Your task to perform on an android device: Check the settings for the Google Chrome app Image 0: 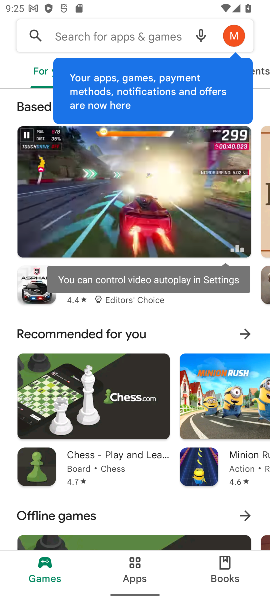
Step 0: press home button
Your task to perform on an android device: Check the settings for the Google Chrome app Image 1: 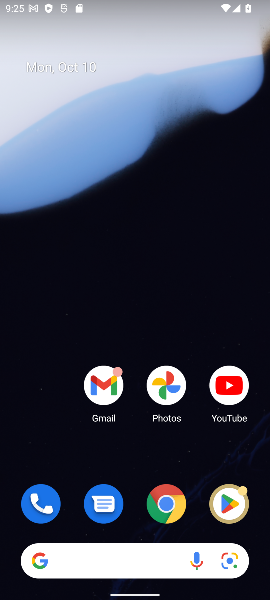
Step 1: click (166, 507)
Your task to perform on an android device: Check the settings for the Google Chrome app Image 2: 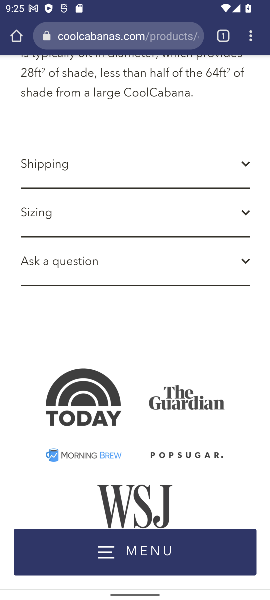
Step 2: click (121, 24)
Your task to perform on an android device: Check the settings for the Google Chrome app Image 3: 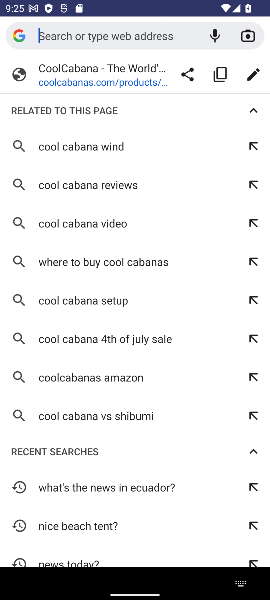
Step 3: press back button
Your task to perform on an android device: Check the settings for the Google Chrome app Image 4: 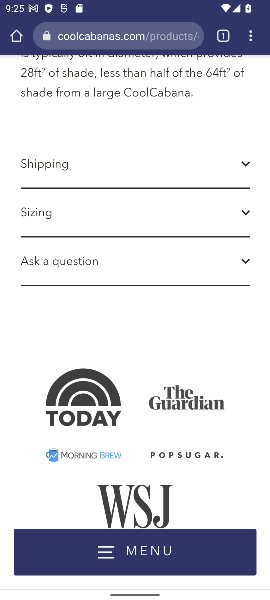
Step 4: click (249, 38)
Your task to perform on an android device: Check the settings for the Google Chrome app Image 5: 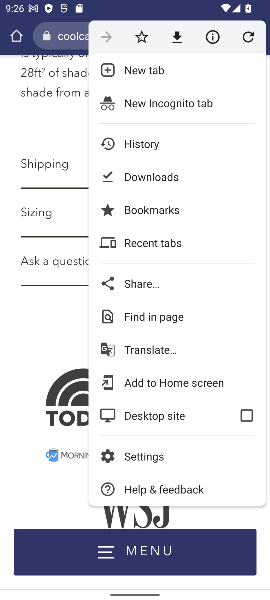
Step 5: click (143, 465)
Your task to perform on an android device: Check the settings for the Google Chrome app Image 6: 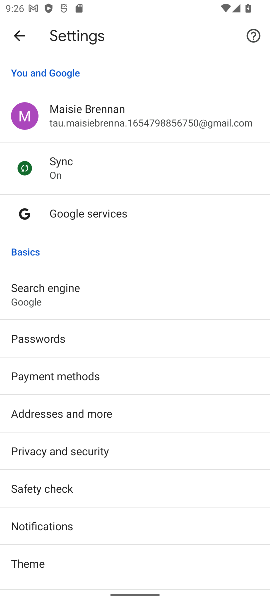
Step 6: task complete